Your task to perform on an android device: change the clock style Image 0: 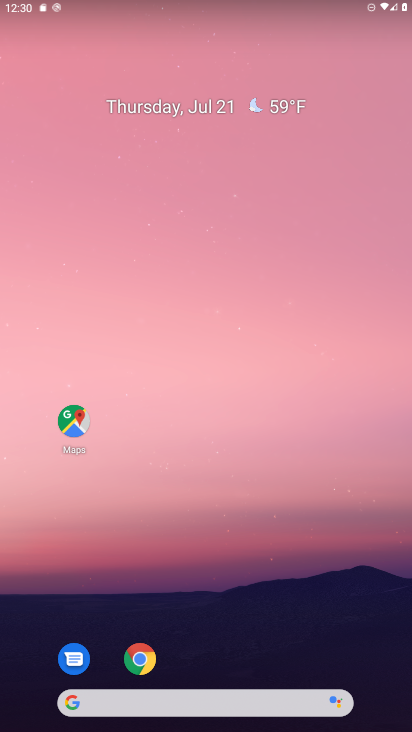
Step 0: drag from (25, 575) to (251, 123)
Your task to perform on an android device: change the clock style Image 1: 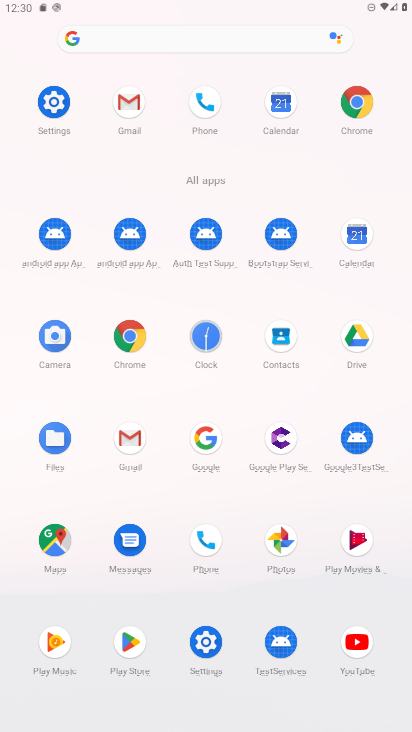
Step 1: click (200, 343)
Your task to perform on an android device: change the clock style Image 2: 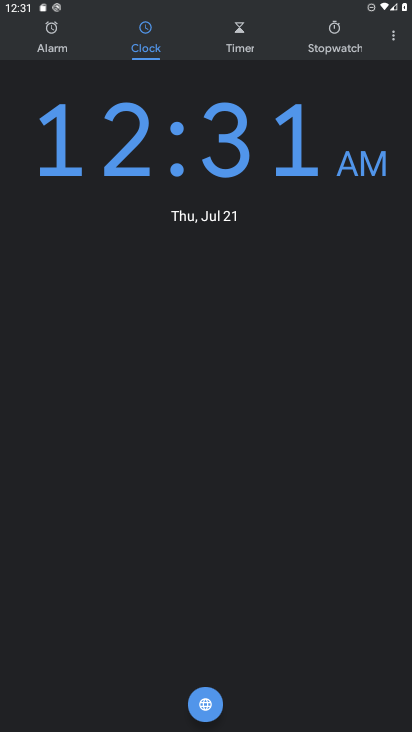
Step 2: click (393, 38)
Your task to perform on an android device: change the clock style Image 3: 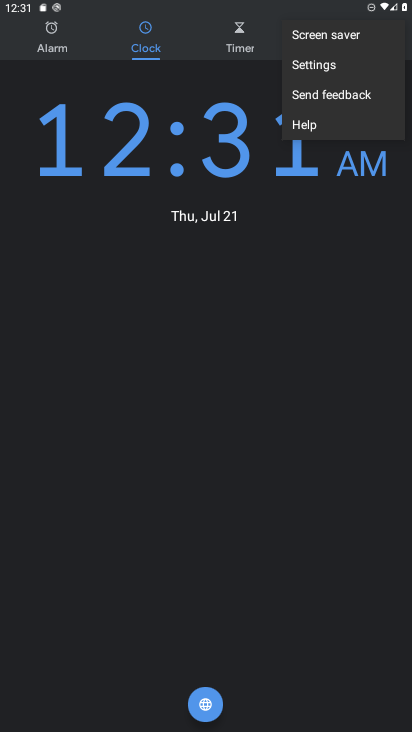
Step 3: click (319, 70)
Your task to perform on an android device: change the clock style Image 4: 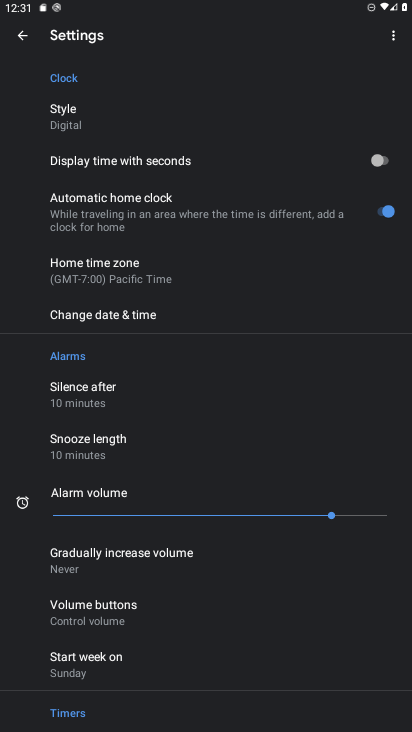
Step 4: click (71, 119)
Your task to perform on an android device: change the clock style Image 5: 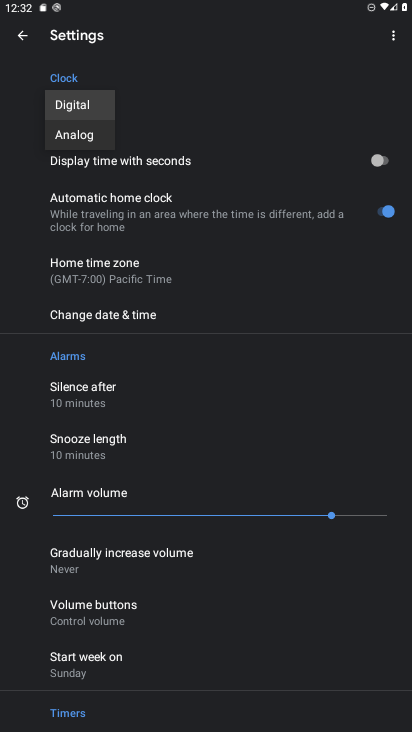
Step 5: click (89, 139)
Your task to perform on an android device: change the clock style Image 6: 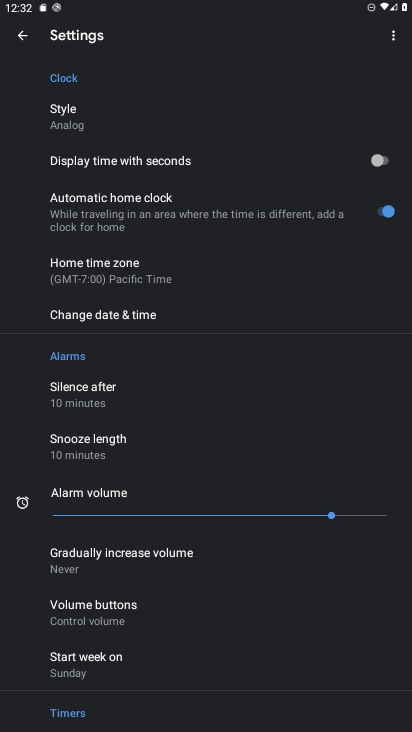
Step 6: task complete